Your task to perform on an android device: What's the weather today? Image 0: 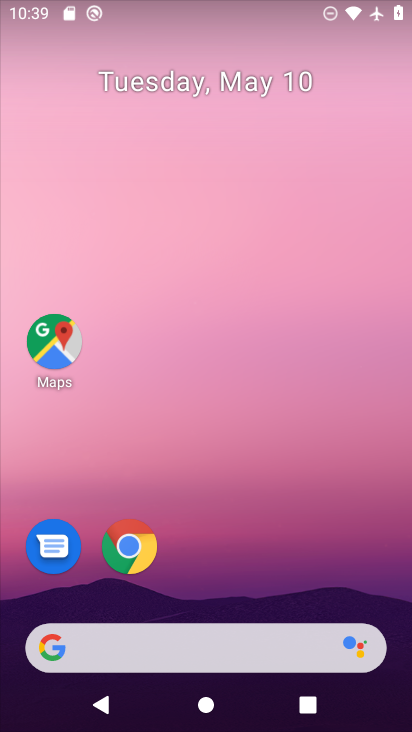
Step 0: drag from (284, 570) to (243, 96)
Your task to perform on an android device: What's the weather today? Image 1: 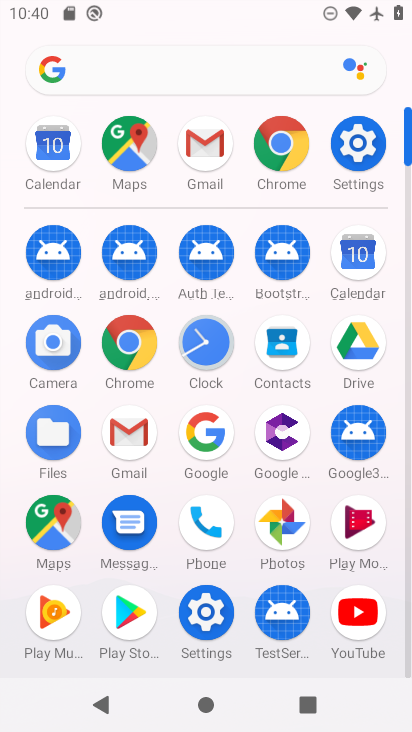
Step 1: press home button
Your task to perform on an android device: What's the weather today? Image 2: 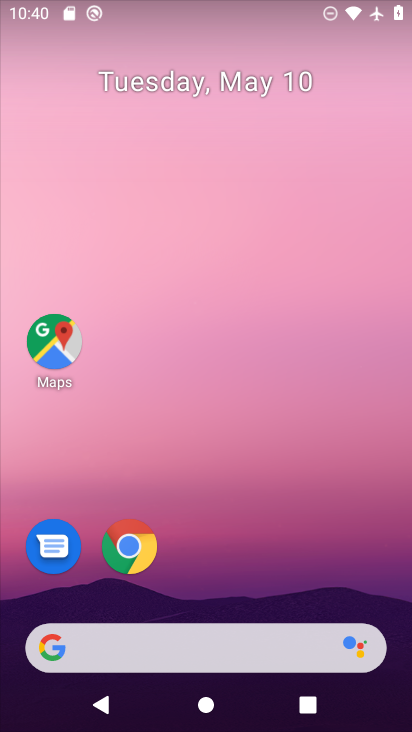
Step 2: drag from (248, 573) to (204, 375)
Your task to perform on an android device: What's the weather today? Image 3: 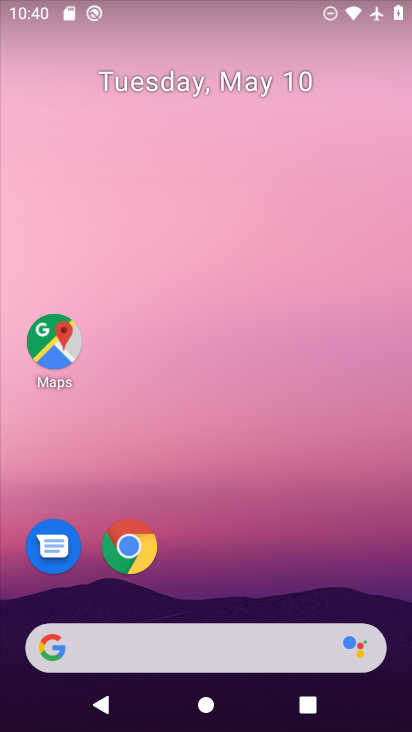
Step 3: click (131, 544)
Your task to perform on an android device: What's the weather today? Image 4: 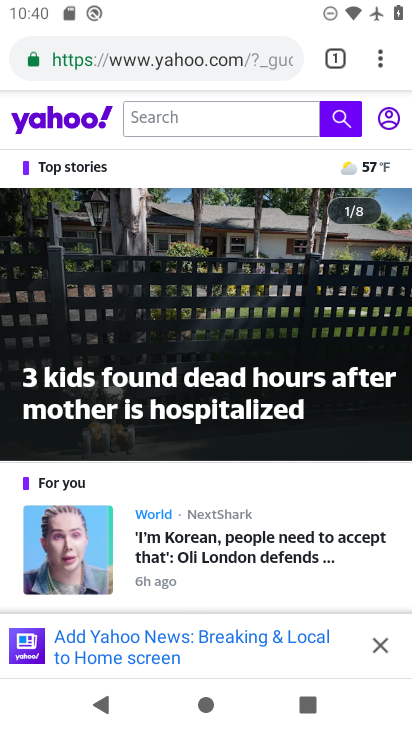
Step 4: click (223, 66)
Your task to perform on an android device: What's the weather today? Image 5: 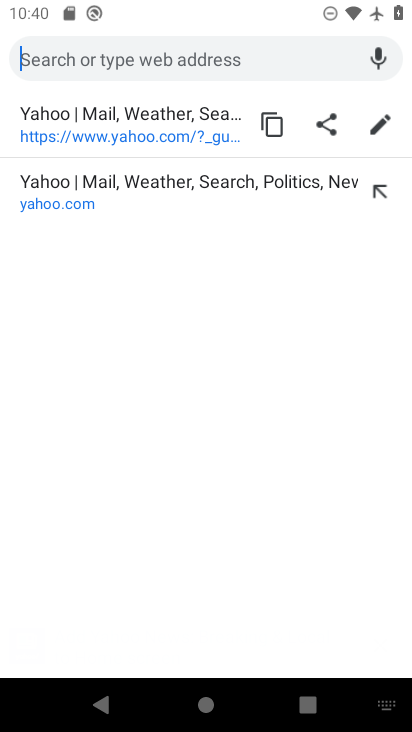
Step 5: type "weather"
Your task to perform on an android device: What's the weather today? Image 6: 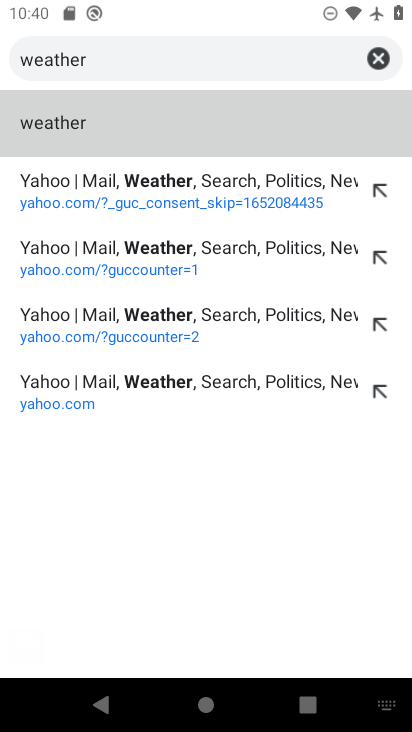
Step 6: click (57, 115)
Your task to perform on an android device: What's the weather today? Image 7: 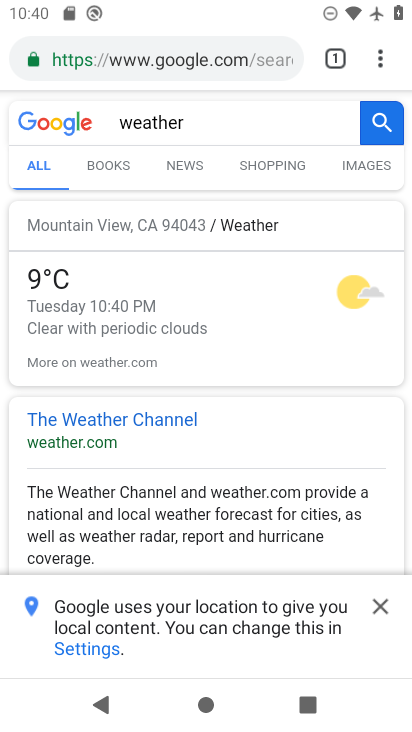
Step 7: task complete